Your task to perform on an android device: What's the weather today? Image 0: 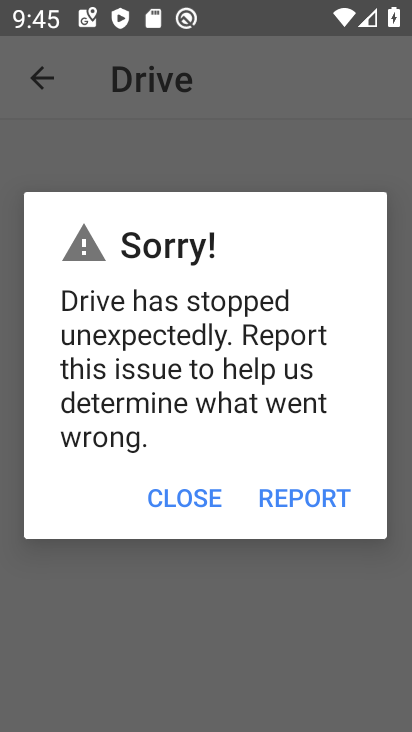
Step 0: press home button
Your task to perform on an android device: What's the weather today? Image 1: 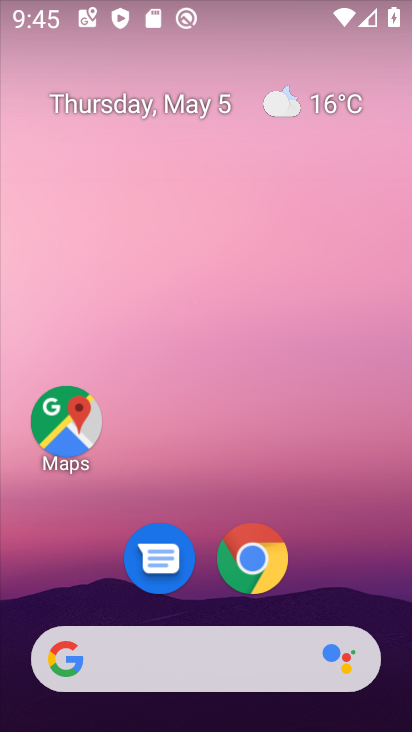
Step 1: click (261, 563)
Your task to perform on an android device: What's the weather today? Image 2: 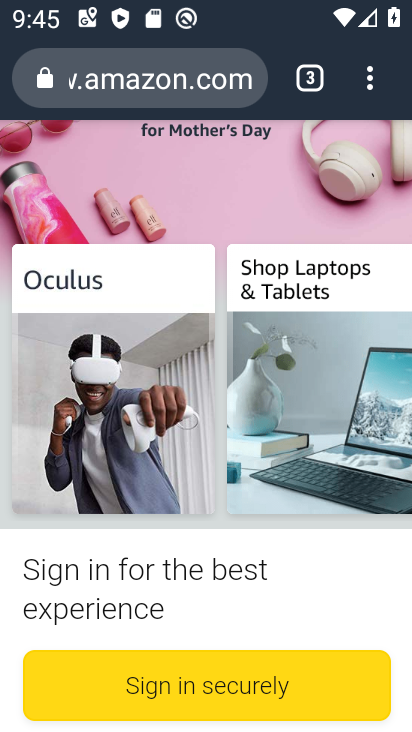
Step 2: click (178, 87)
Your task to perform on an android device: What's the weather today? Image 3: 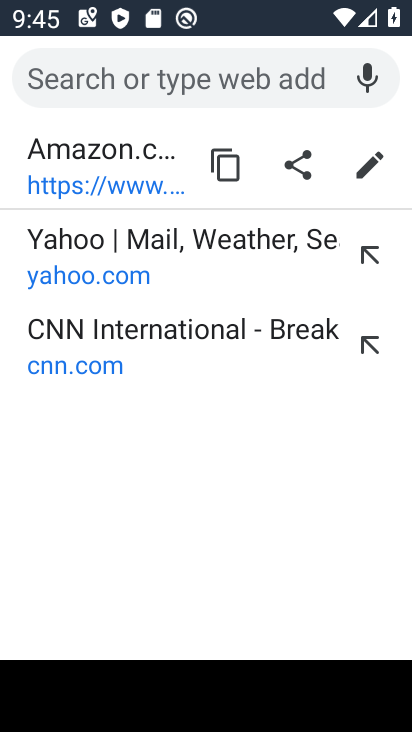
Step 3: drag from (1, 721) to (364, 690)
Your task to perform on an android device: What's the weather today? Image 4: 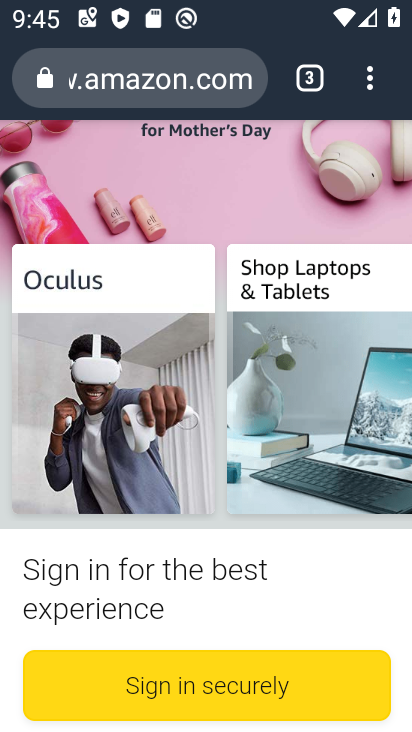
Step 4: click (142, 82)
Your task to perform on an android device: What's the weather today? Image 5: 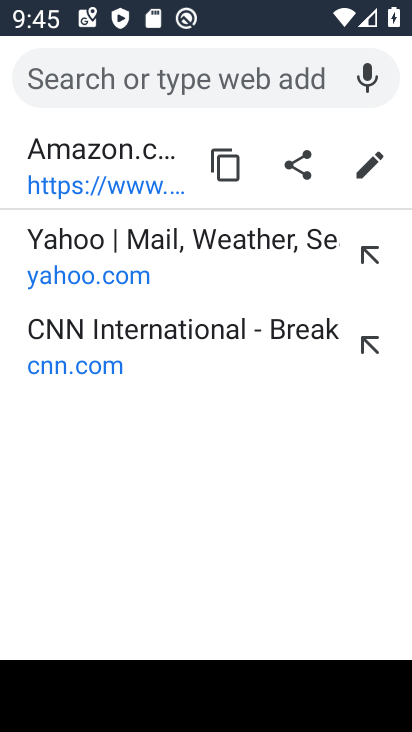
Step 5: type "What's the weather today?"
Your task to perform on an android device: What's the weather today? Image 6: 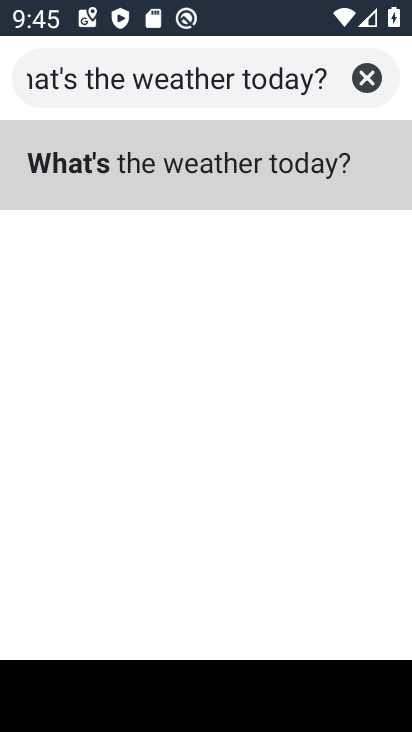
Step 6: click (293, 174)
Your task to perform on an android device: What's the weather today? Image 7: 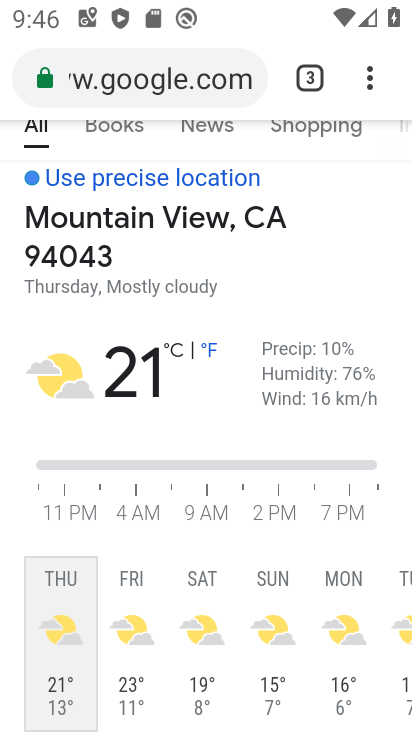
Step 7: task complete